Your task to perform on an android device: clear all cookies in the chrome app Image 0: 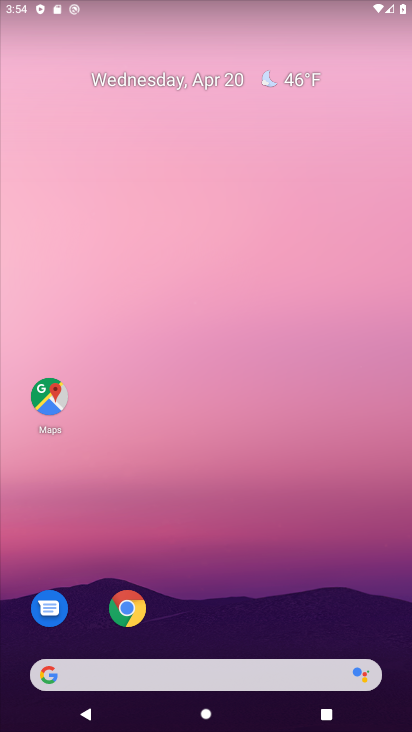
Step 0: drag from (216, 474) to (245, 19)
Your task to perform on an android device: clear all cookies in the chrome app Image 1: 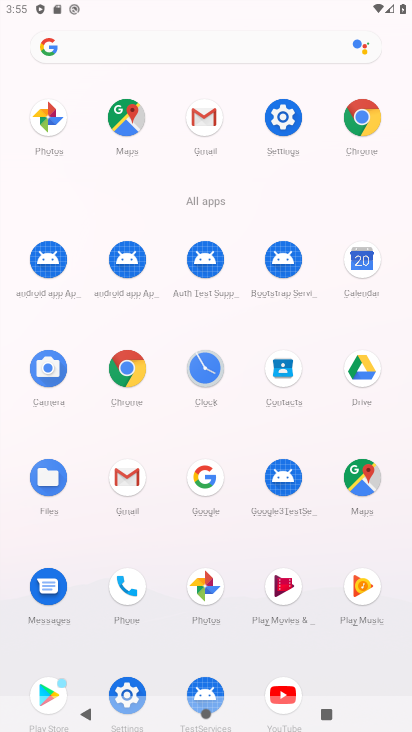
Step 1: click (355, 121)
Your task to perform on an android device: clear all cookies in the chrome app Image 2: 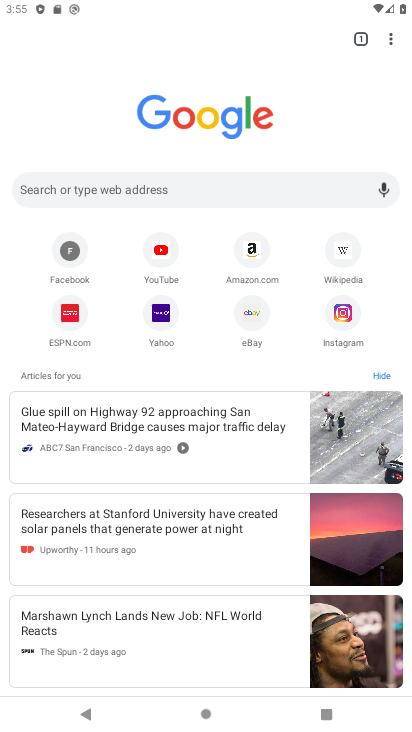
Step 2: click (385, 41)
Your task to perform on an android device: clear all cookies in the chrome app Image 3: 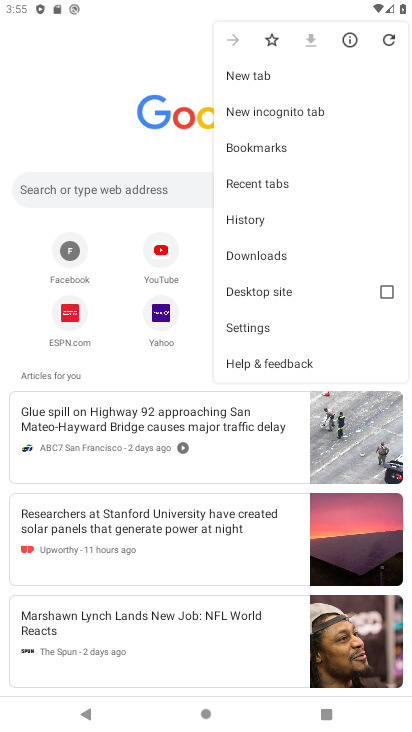
Step 3: click (264, 220)
Your task to perform on an android device: clear all cookies in the chrome app Image 4: 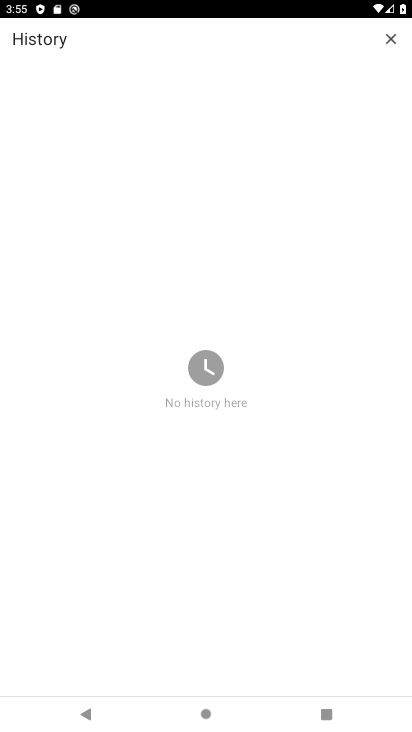
Step 4: task complete